Your task to perform on an android device: install app "Grab" Image 0: 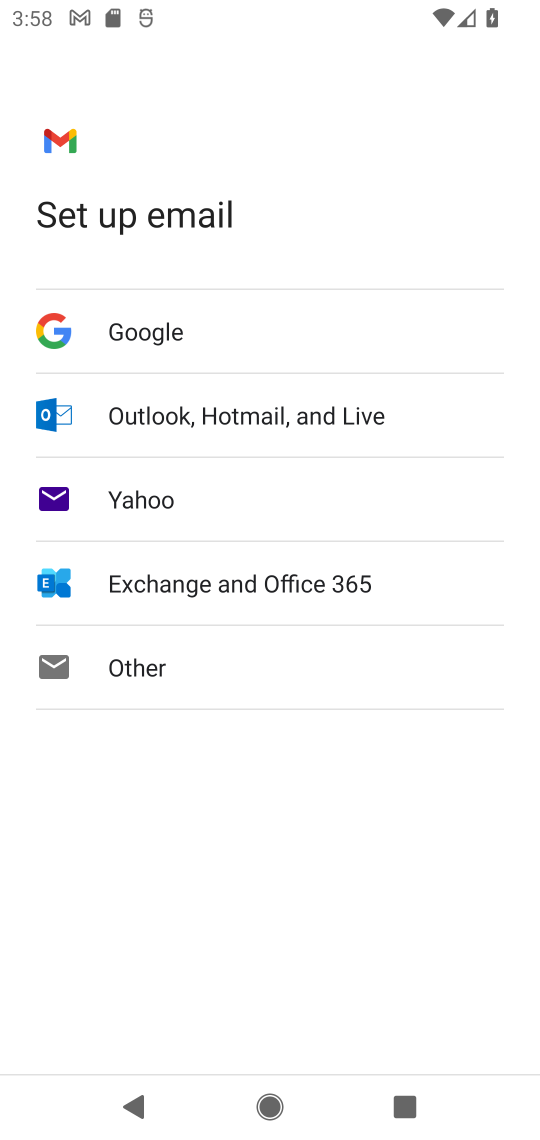
Step 0: press home button
Your task to perform on an android device: install app "Grab" Image 1: 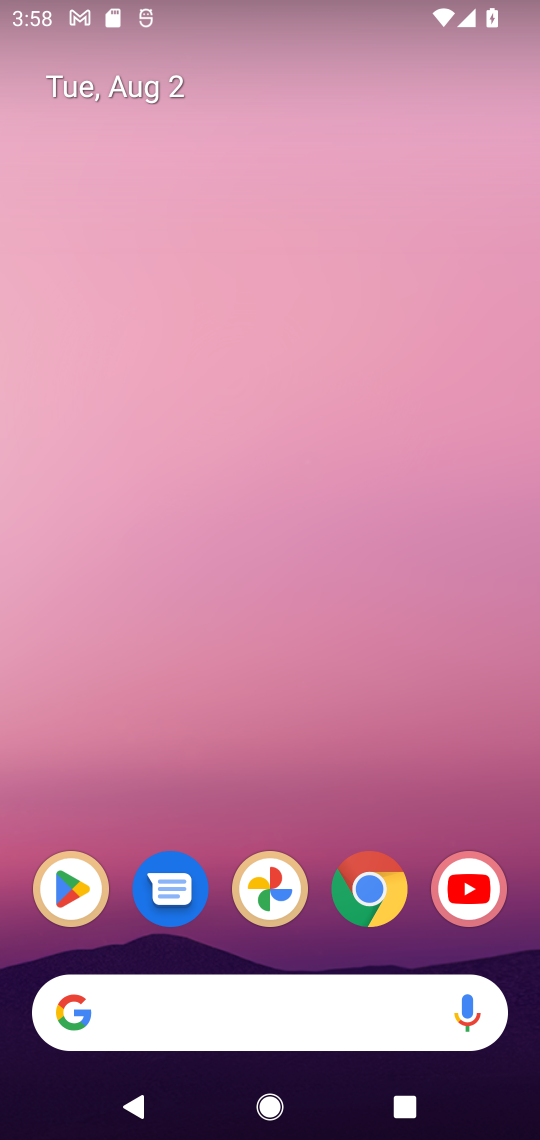
Step 1: drag from (383, 794) to (361, 34)
Your task to perform on an android device: install app "Grab" Image 2: 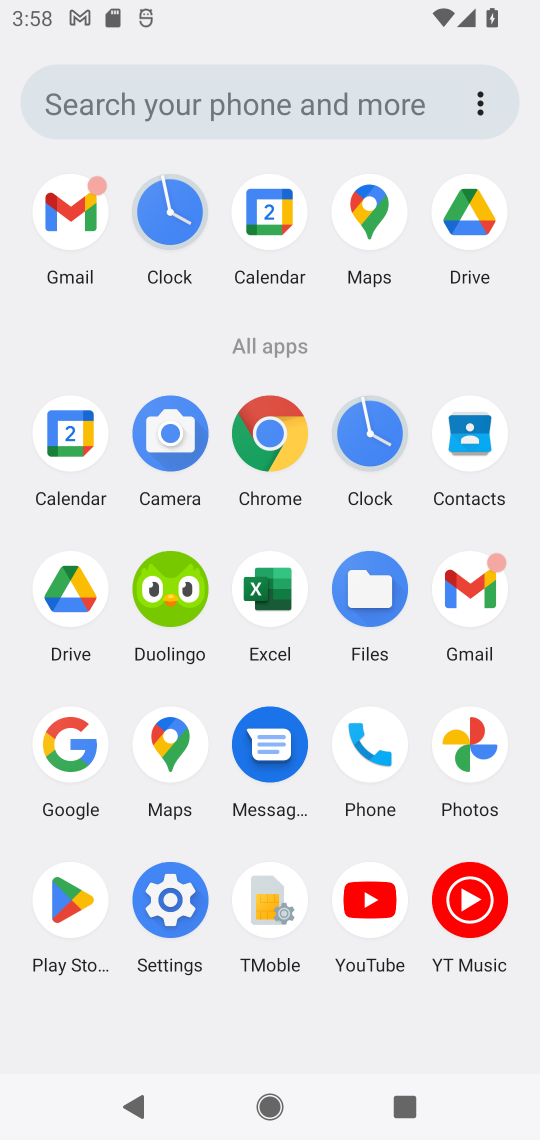
Step 2: click (70, 900)
Your task to perform on an android device: install app "Grab" Image 3: 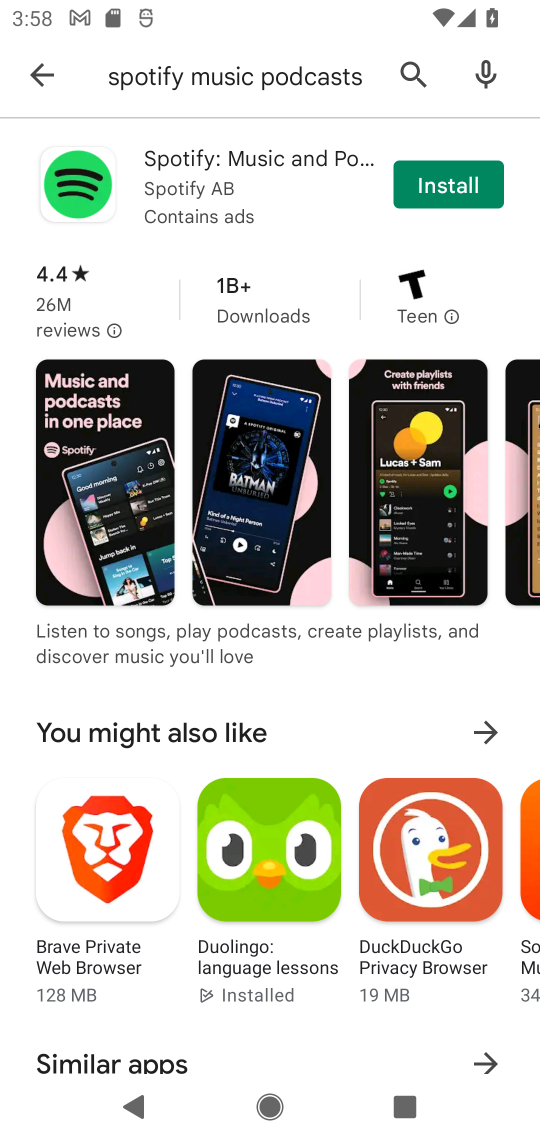
Step 3: click (414, 73)
Your task to perform on an android device: install app "Grab" Image 4: 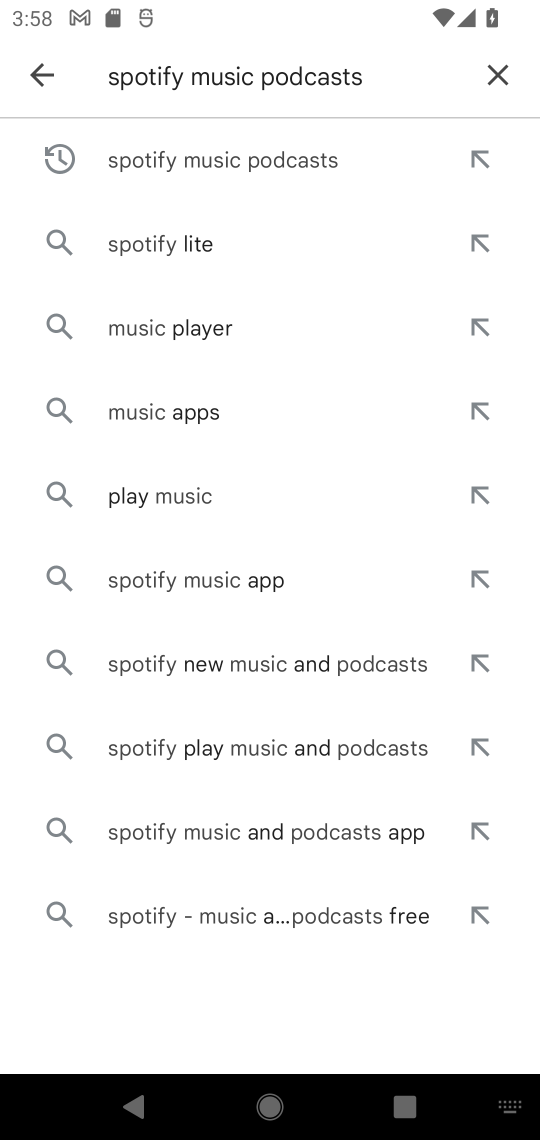
Step 4: click (500, 72)
Your task to perform on an android device: install app "Grab" Image 5: 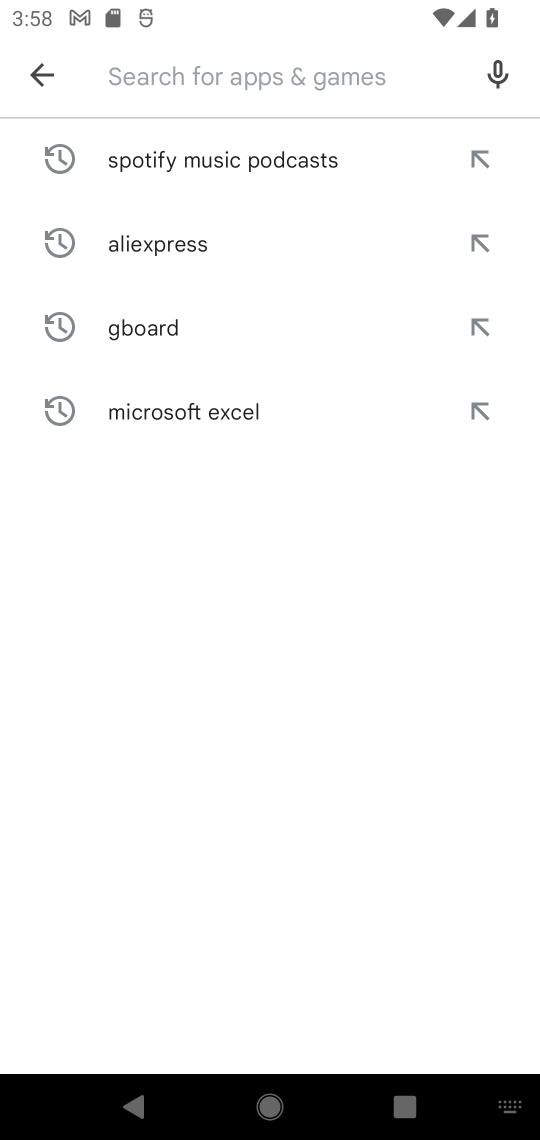
Step 5: type "install app"
Your task to perform on an android device: install app "Grab" Image 6: 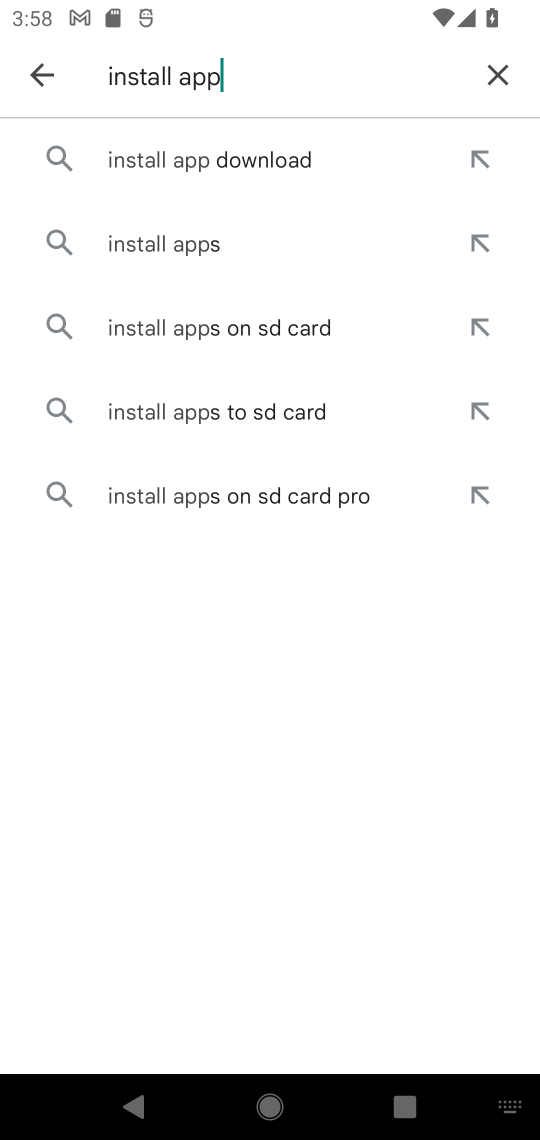
Step 6: click (498, 74)
Your task to perform on an android device: install app "Grab" Image 7: 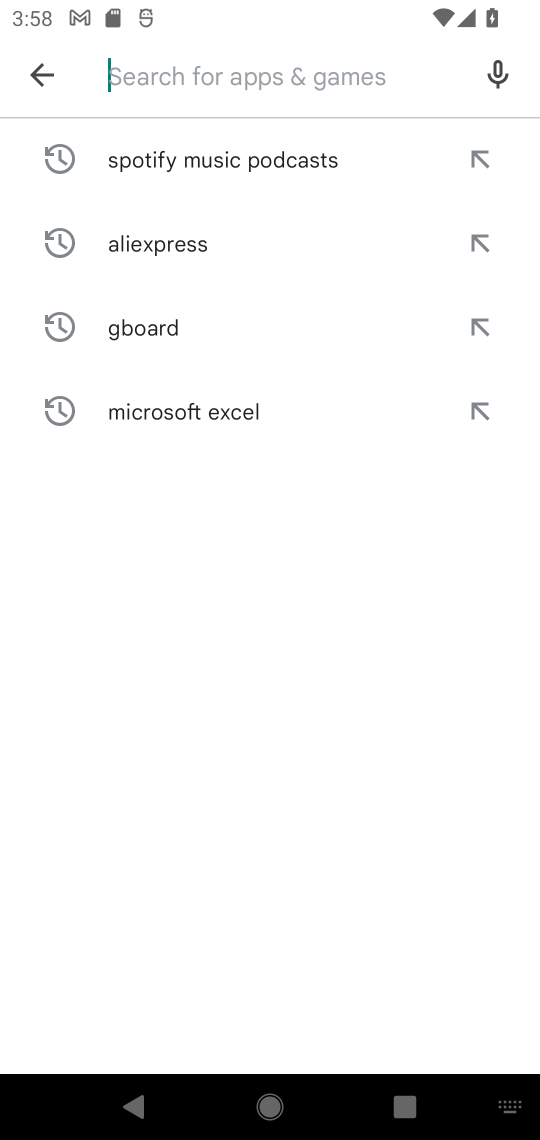
Step 7: type "grab"
Your task to perform on an android device: install app "Grab" Image 8: 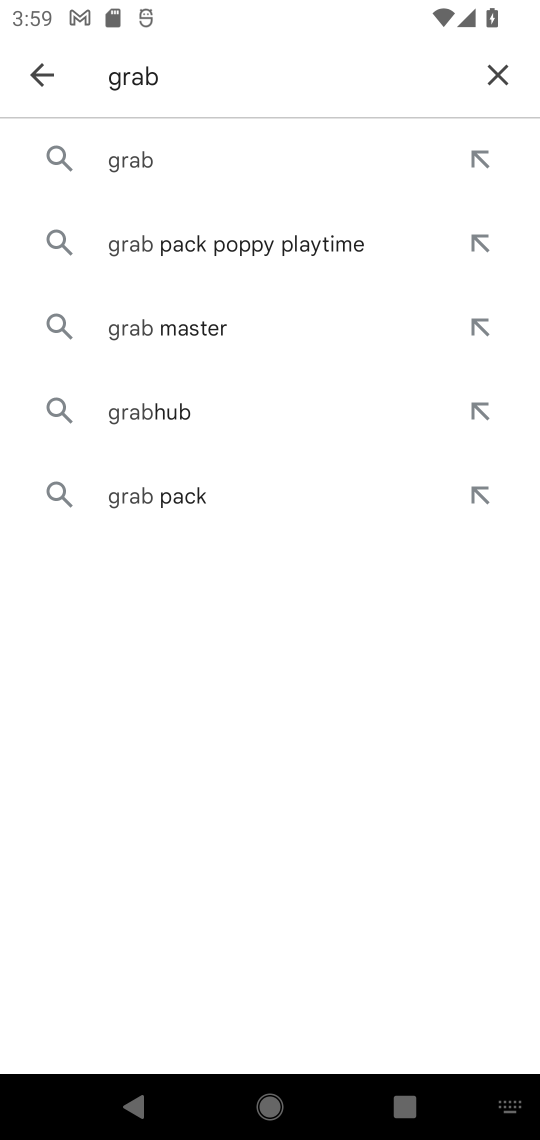
Step 8: click (259, 160)
Your task to perform on an android device: install app "Grab" Image 9: 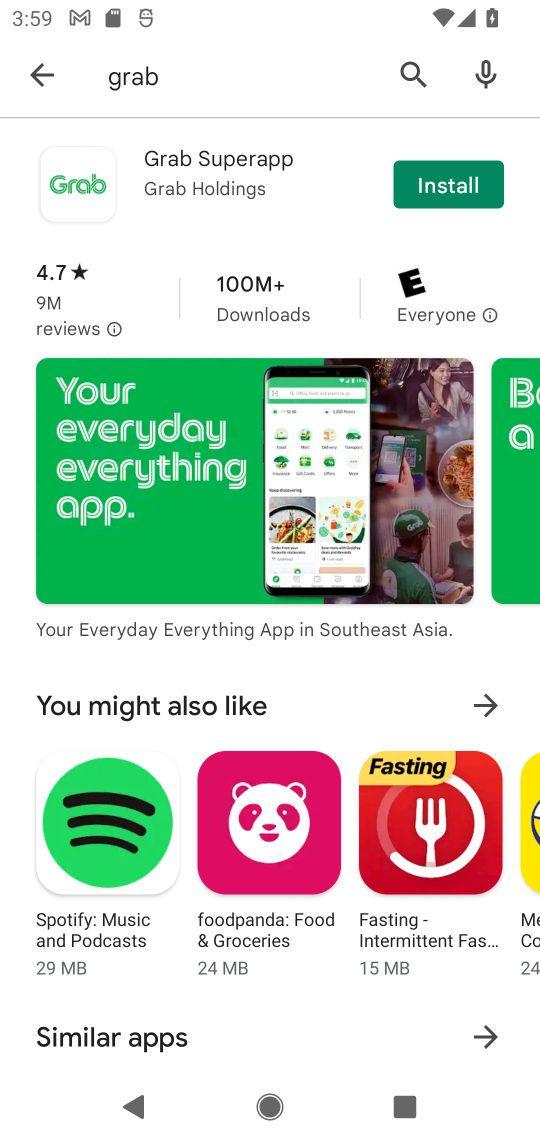
Step 9: click (482, 181)
Your task to perform on an android device: install app "Grab" Image 10: 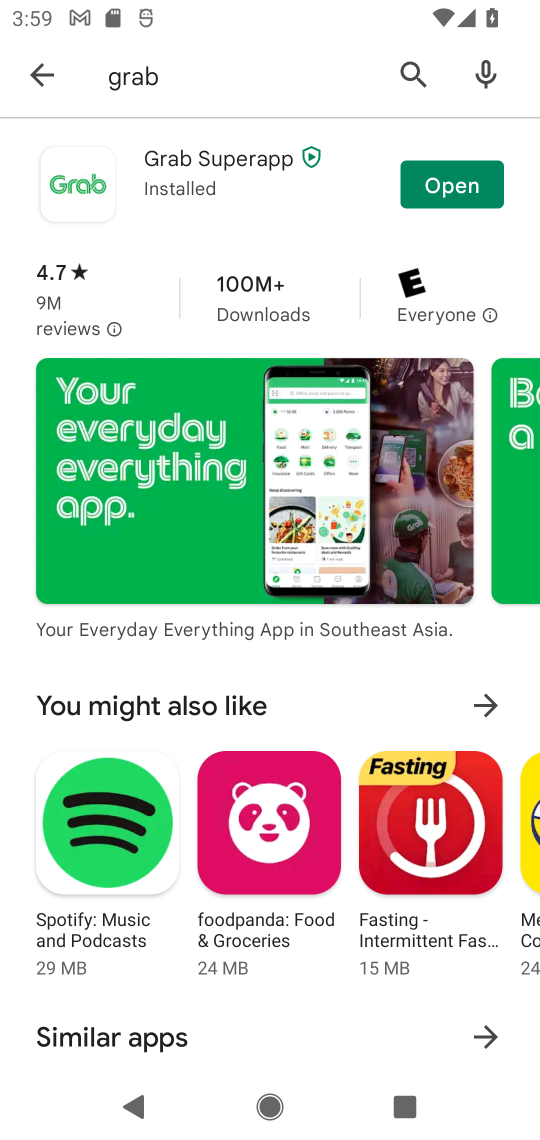
Step 10: task complete